Your task to perform on an android device: Open Youtube and go to the subscriptions tab Image 0: 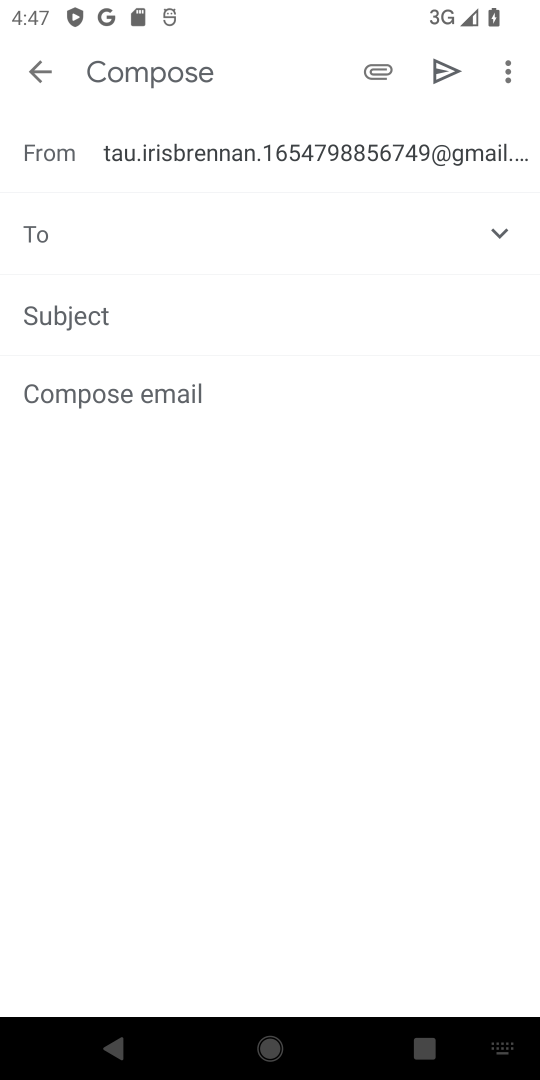
Step 0: press home button
Your task to perform on an android device: Open Youtube and go to the subscriptions tab Image 1: 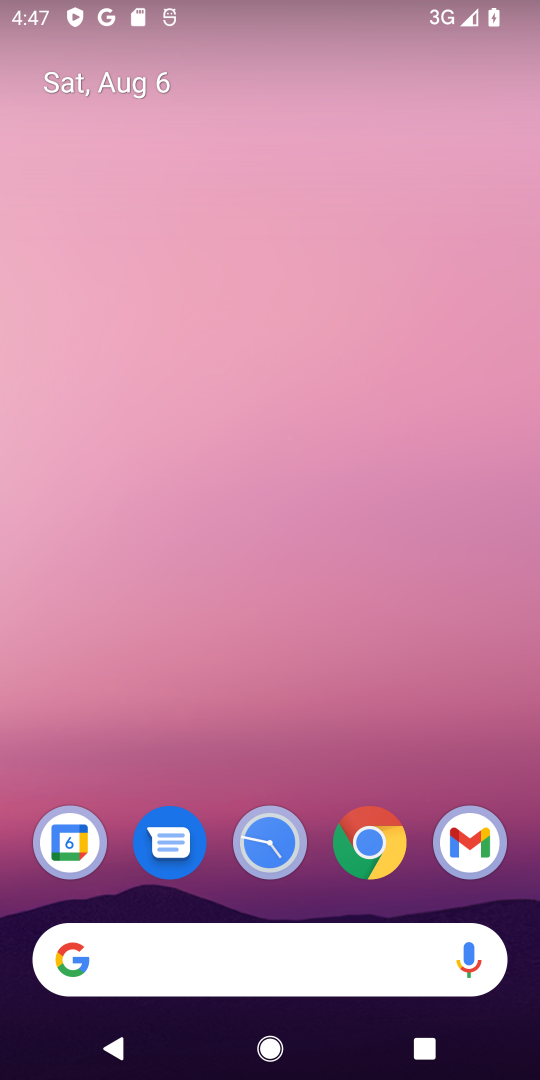
Step 1: drag from (510, 1048) to (464, 181)
Your task to perform on an android device: Open Youtube and go to the subscriptions tab Image 2: 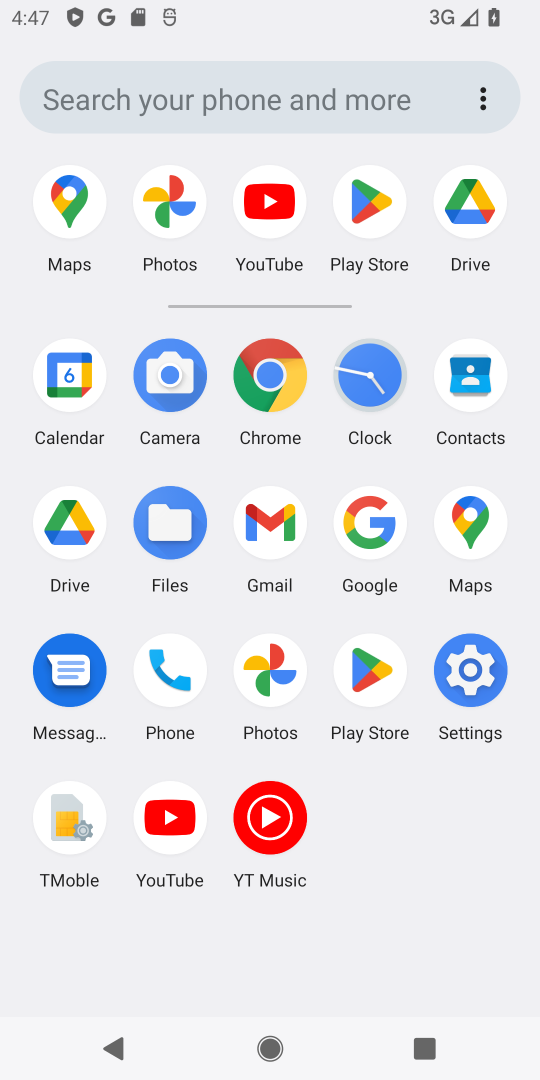
Step 2: click (177, 829)
Your task to perform on an android device: Open Youtube and go to the subscriptions tab Image 3: 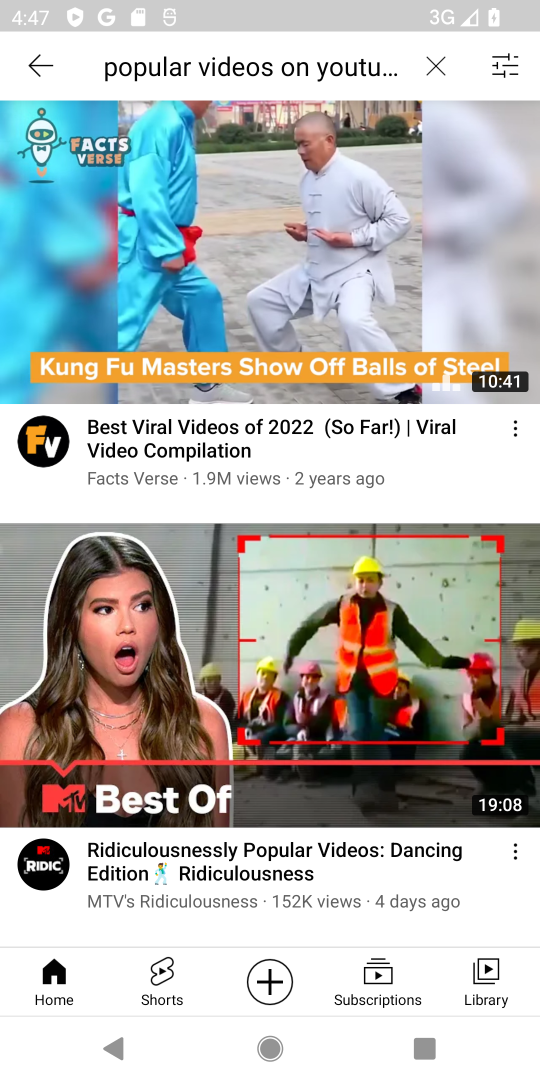
Step 3: click (372, 970)
Your task to perform on an android device: Open Youtube and go to the subscriptions tab Image 4: 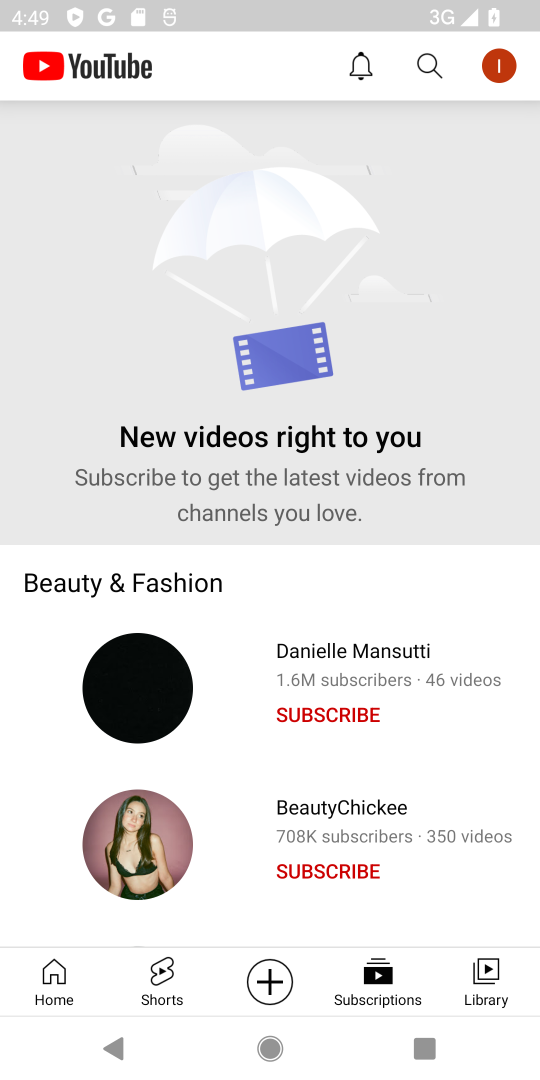
Step 4: task complete